Your task to perform on an android device: What's the weather going to be tomorrow? Image 0: 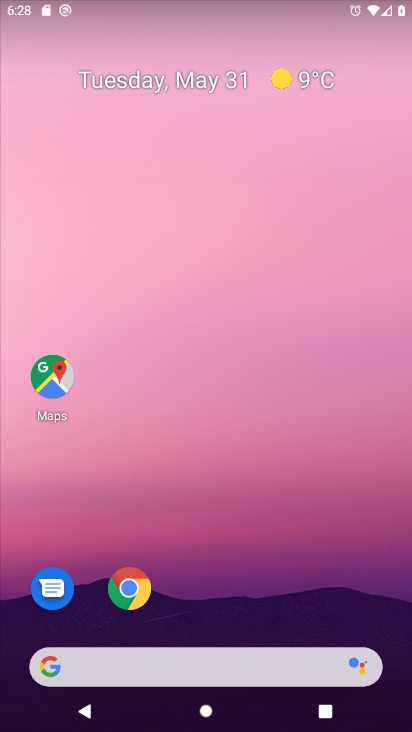
Step 0: drag from (183, 627) to (195, 286)
Your task to perform on an android device: What's the weather going to be tomorrow? Image 1: 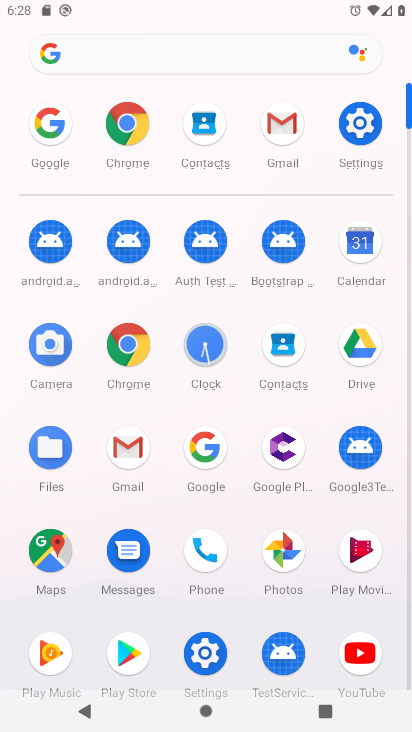
Step 1: click (46, 148)
Your task to perform on an android device: What's the weather going to be tomorrow? Image 2: 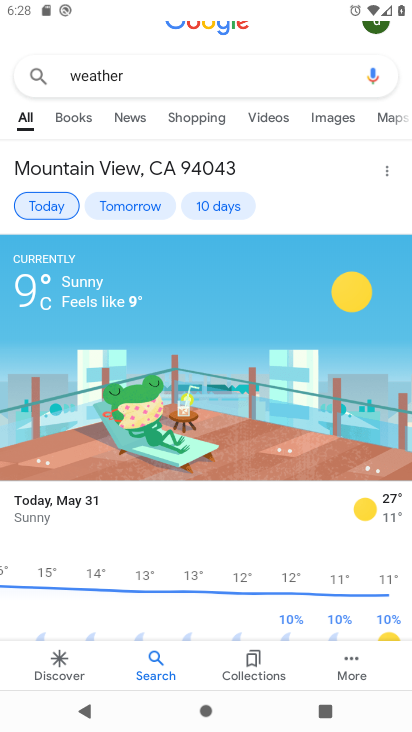
Step 2: click (137, 207)
Your task to perform on an android device: What's the weather going to be tomorrow? Image 3: 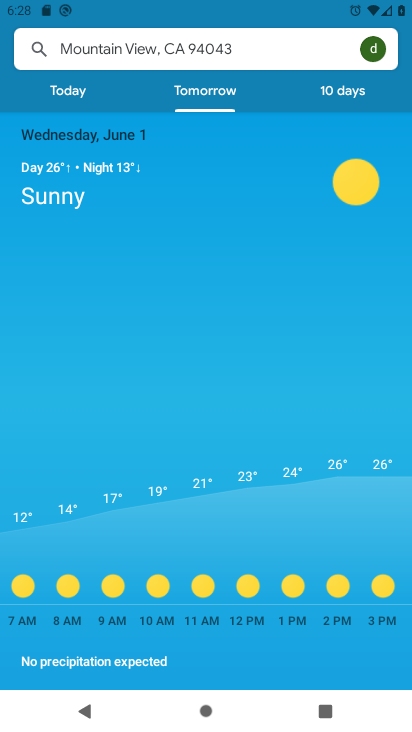
Step 3: task complete